Your task to perform on an android device: Open Amazon Image 0: 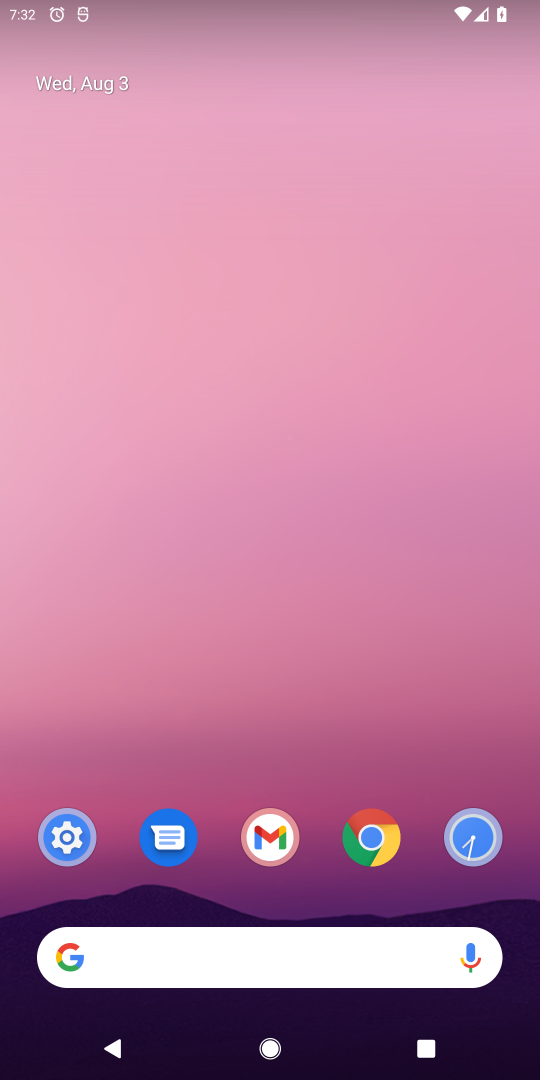
Step 0: press home button
Your task to perform on an android device: Open Amazon Image 1: 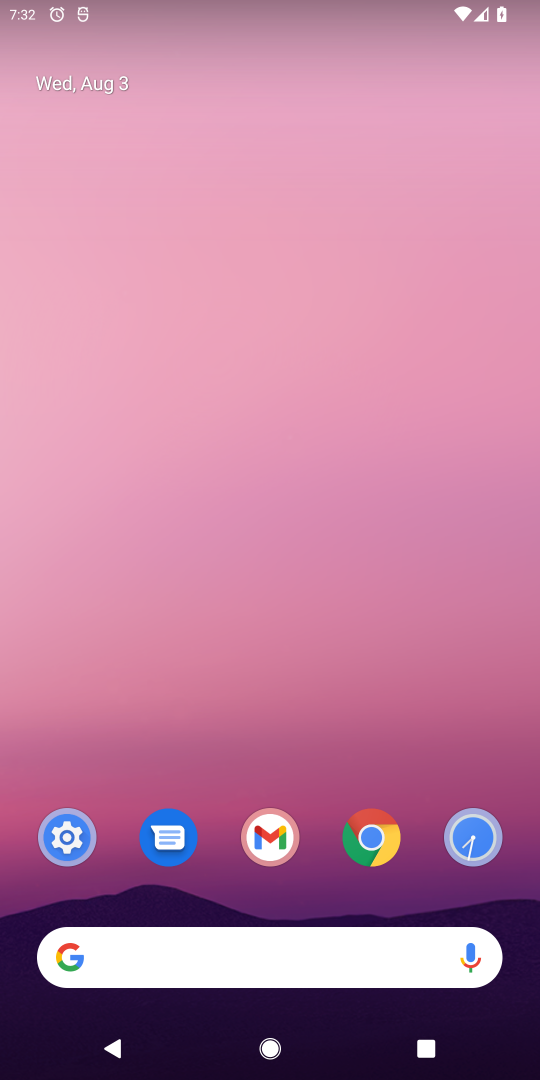
Step 1: click (74, 953)
Your task to perform on an android device: Open Amazon Image 2: 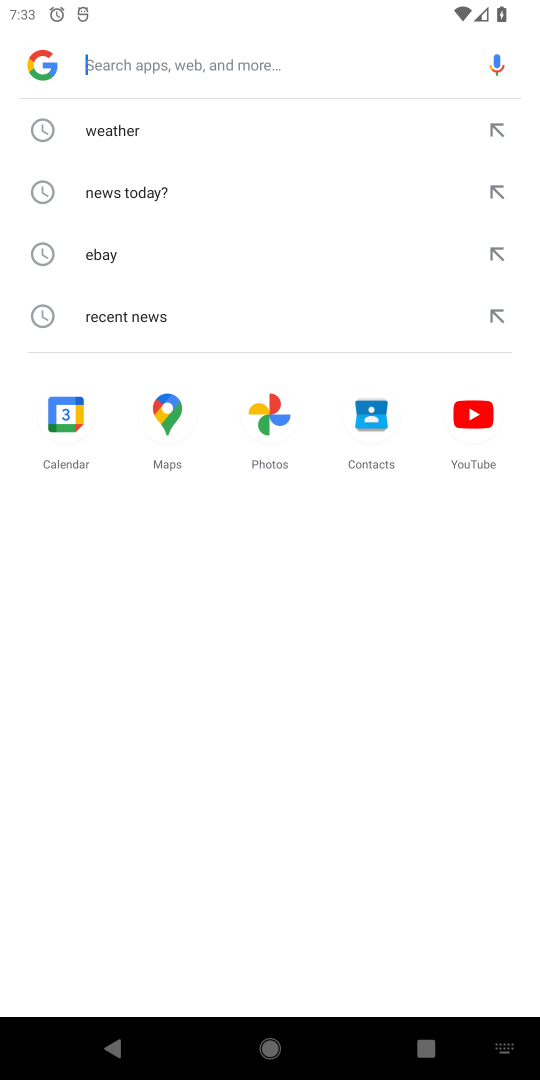
Step 2: type " Amazon"
Your task to perform on an android device: Open Amazon Image 3: 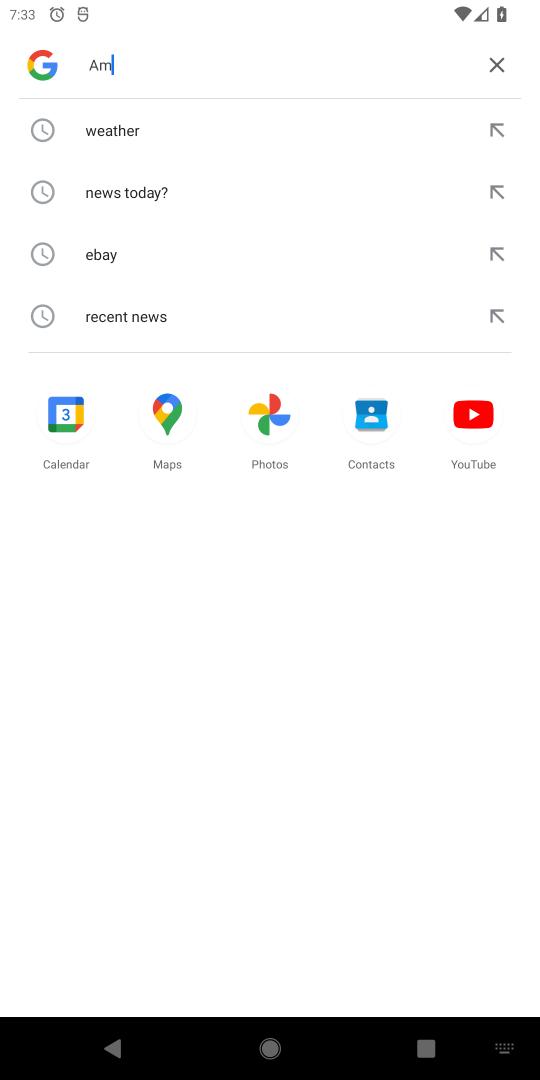
Step 3: press enter
Your task to perform on an android device: Open Amazon Image 4: 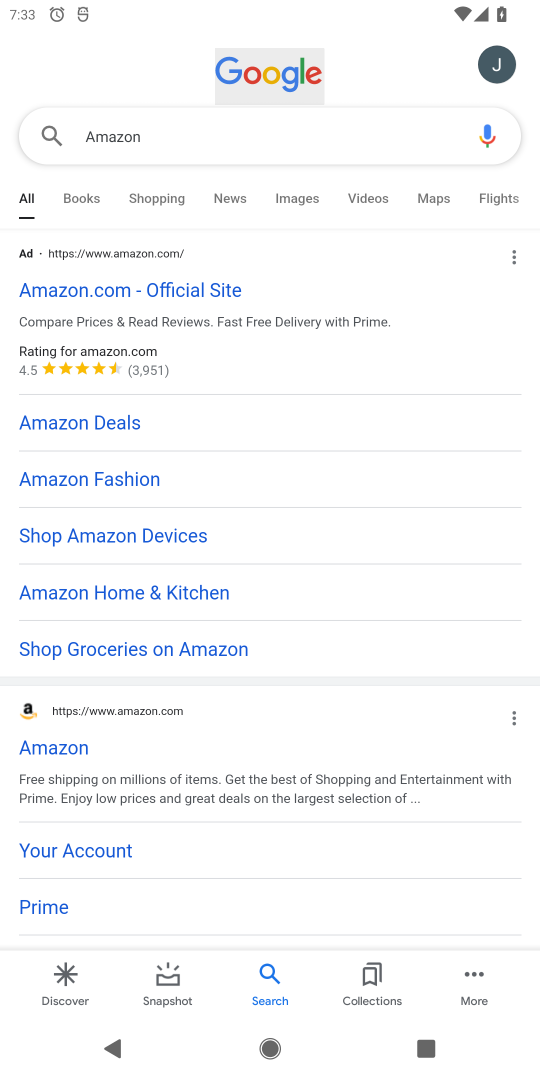
Step 4: click (114, 294)
Your task to perform on an android device: Open Amazon Image 5: 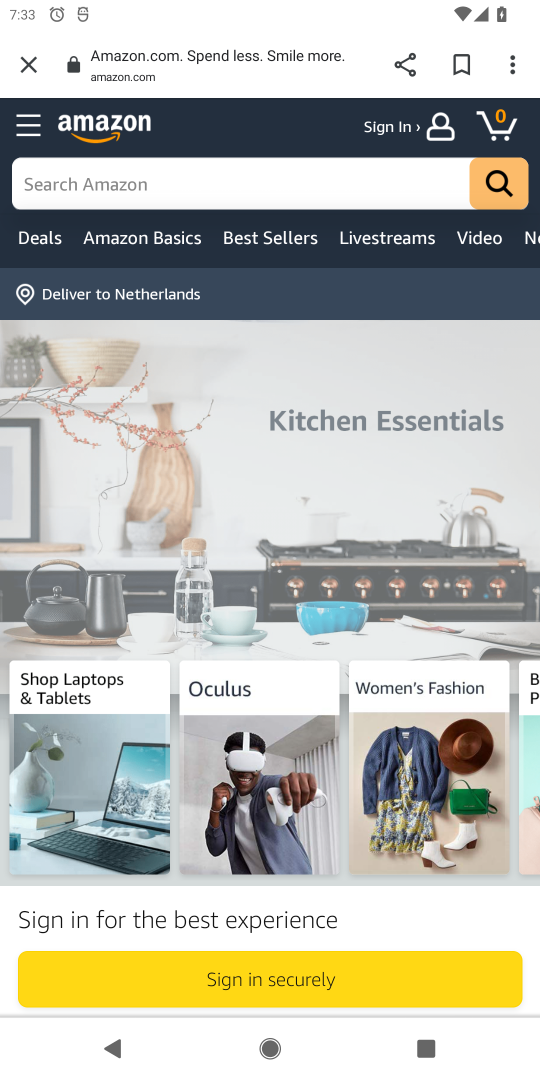
Step 5: task complete